Your task to perform on an android device: toggle sleep mode Image 0: 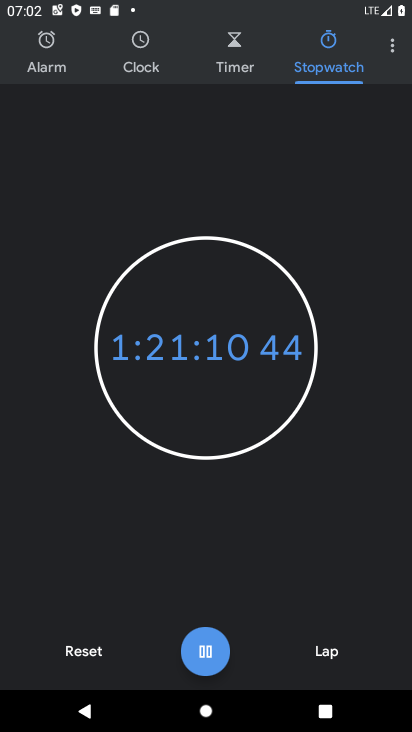
Step 0: press home button
Your task to perform on an android device: toggle sleep mode Image 1: 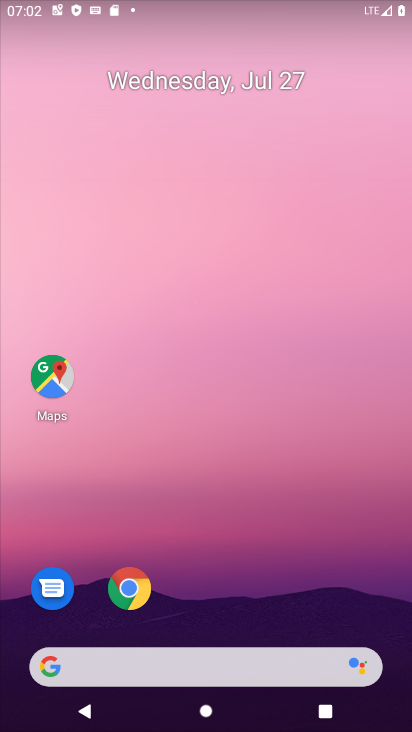
Step 1: drag from (270, 596) to (297, 1)
Your task to perform on an android device: toggle sleep mode Image 2: 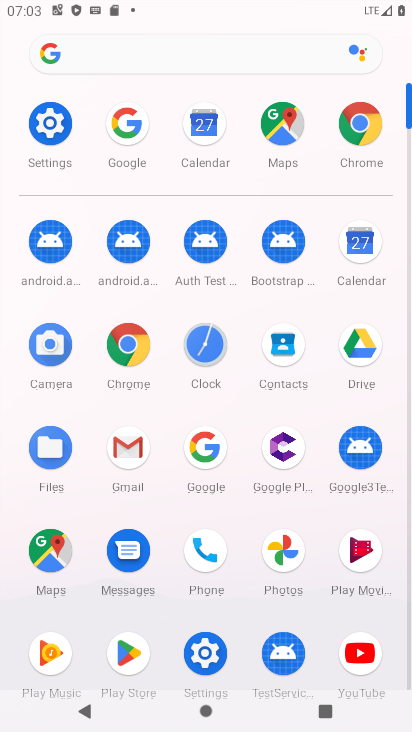
Step 2: click (55, 132)
Your task to perform on an android device: toggle sleep mode Image 3: 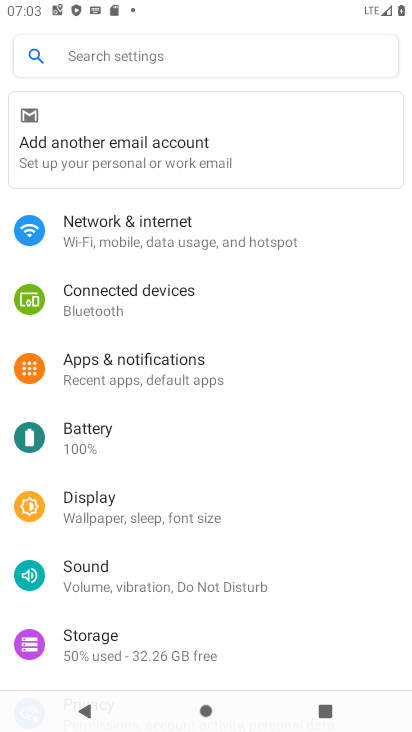
Step 3: click (175, 523)
Your task to perform on an android device: toggle sleep mode Image 4: 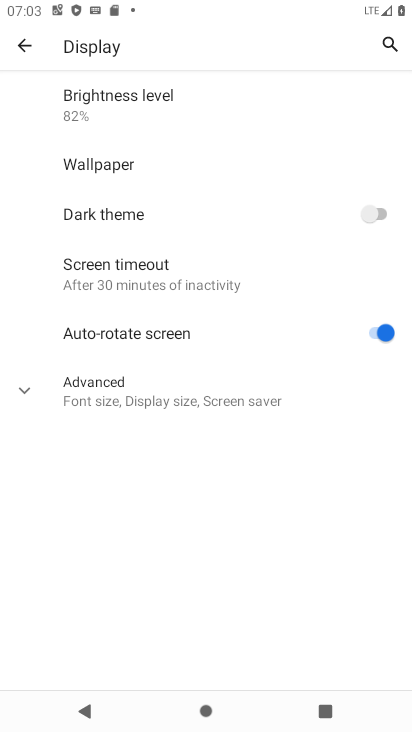
Step 4: task complete